Your task to perform on an android device: Go to Google Image 0: 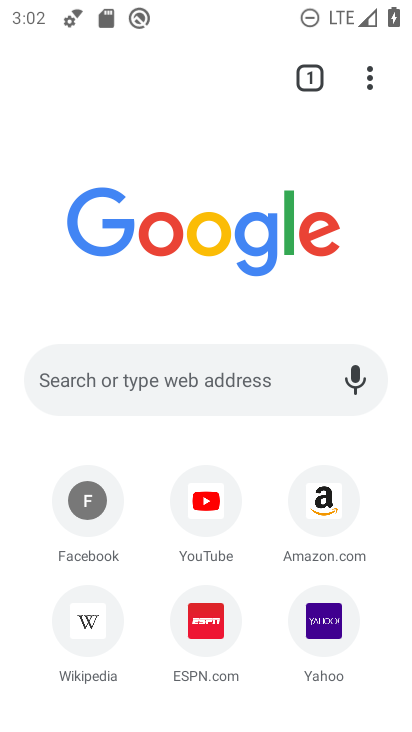
Step 0: press home button
Your task to perform on an android device: Go to Google Image 1: 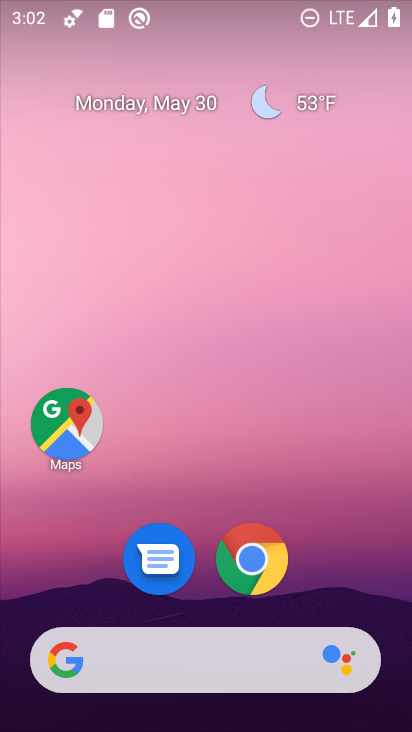
Step 1: drag from (52, 632) to (164, 117)
Your task to perform on an android device: Go to Google Image 2: 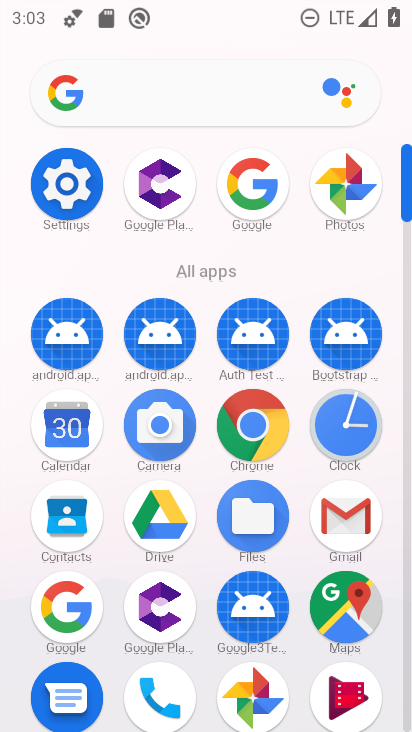
Step 2: drag from (184, 662) to (218, 414)
Your task to perform on an android device: Go to Google Image 3: 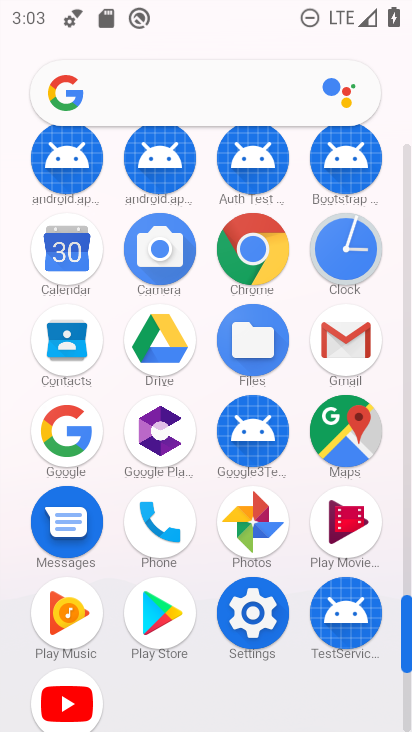
Step 3: click (48, 434)
Your task to perform on an android device: Go to Google Image 4: 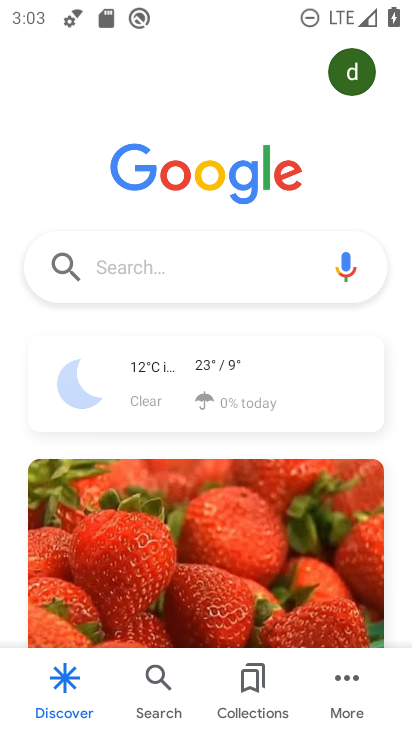
Step 4: task complete